Your task to perform on an android device: turn off translation in the chrome app Image 0: 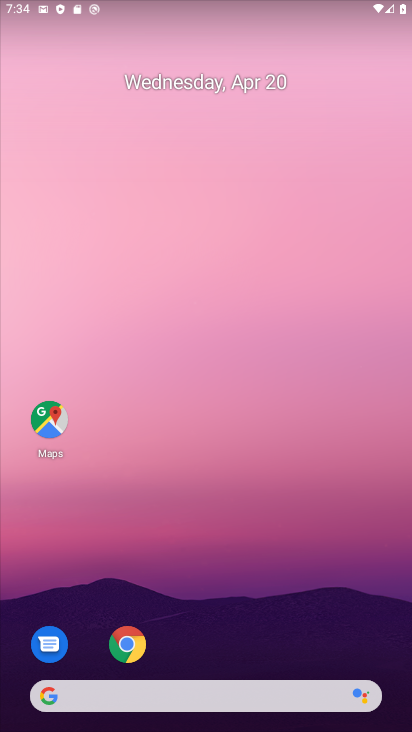
Step 0: click (131, 649)
Your task to perform on an android device: turn off translation in the chrome app Image 1: 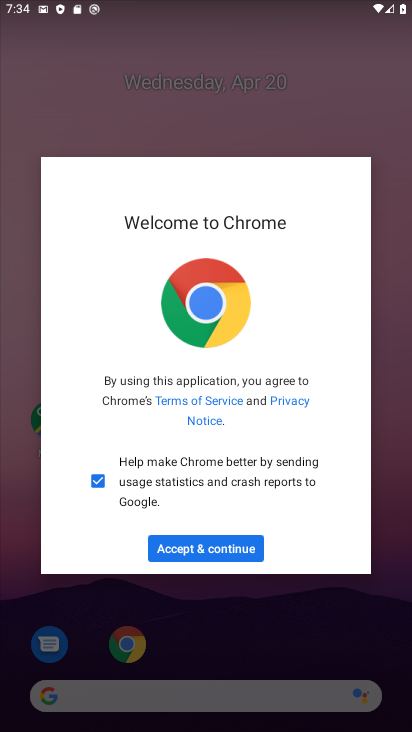
Step 1: click (214, 554)
Your task to perform on an android device: turn off translation in the chrome app Image 2: 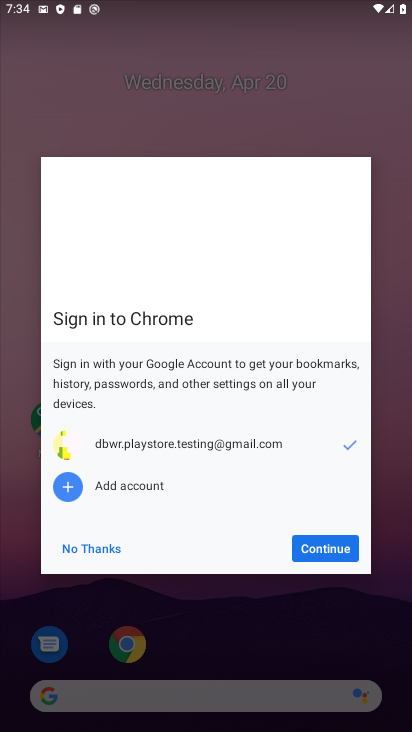
Step 2: click (89, 544)
Your task to perform on an android device: turn off translation in the chrome app Image 3: 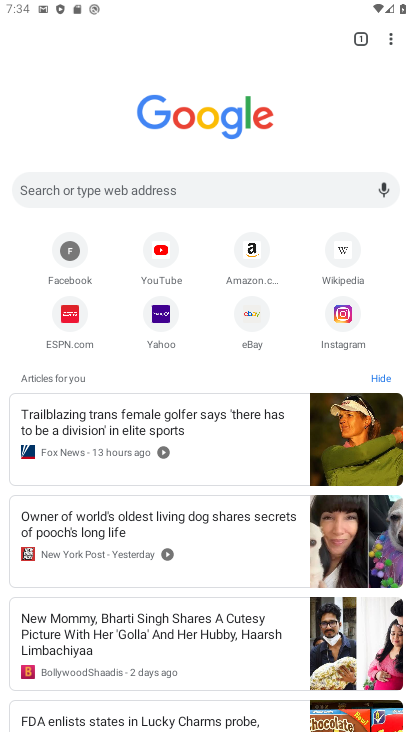
Step 3: click (388, 38)
Your task to perform on an android device: turn off translation in the chrome app Image 4: 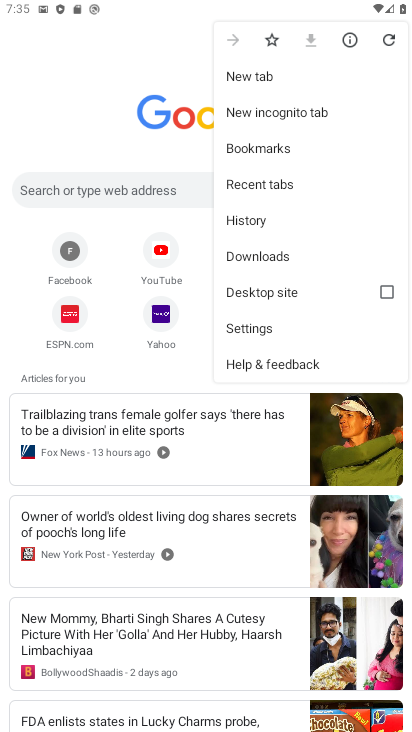
Step 4: click (245, 328)
Your task to perform on an android device: turn off translation in the chrome app Image 5: 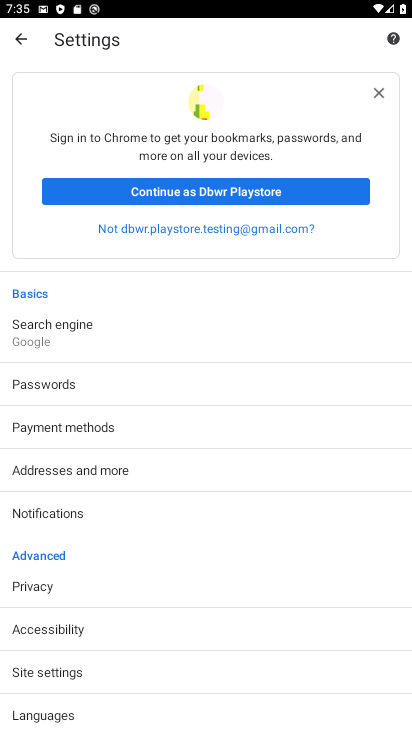
Step 5: click (67, 716)
Your task to perform on an android device: turn off translation in the chrome app Image 6: 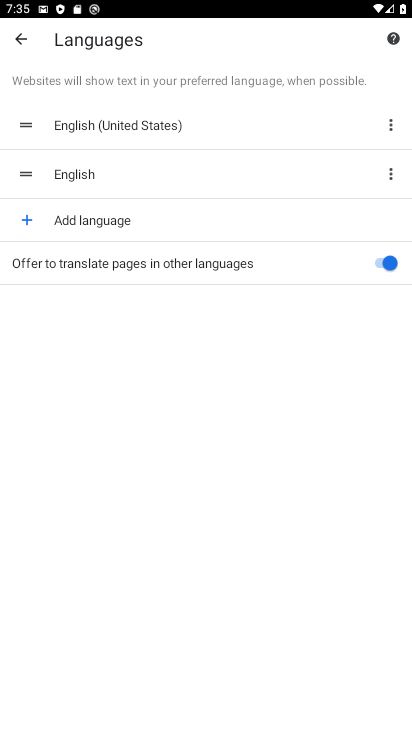
Step 6: click (382, 263)
Your task to perform on an android device: turn off translation in the chrome app Image 7: 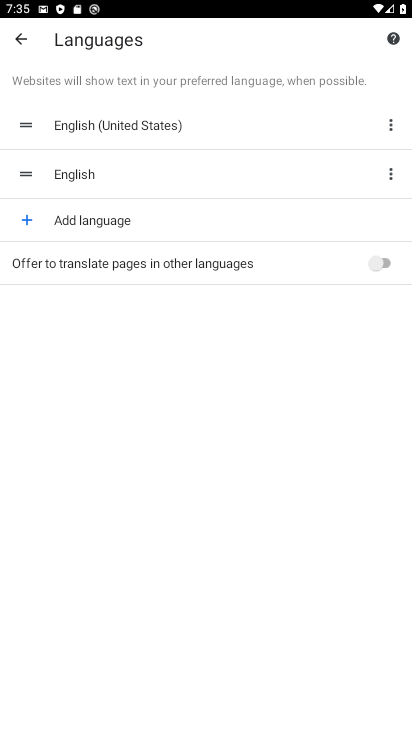
Step 7: task complete